Your task to perform on an android device: Toggle the flashlight Image 0: 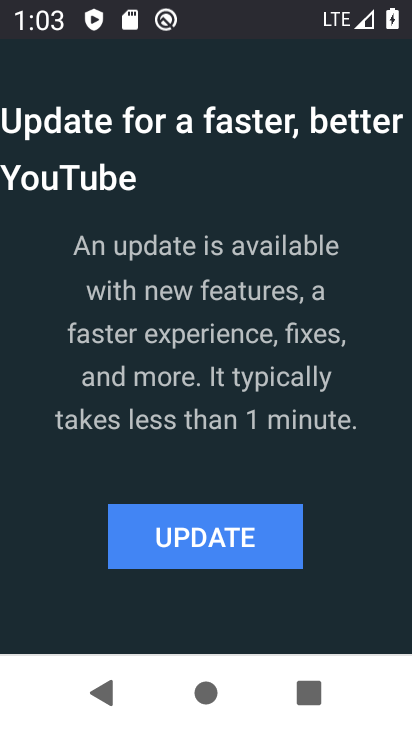
Step 0: press home button
Your task to perform on an android device: Toggle the flashlight Image 1: 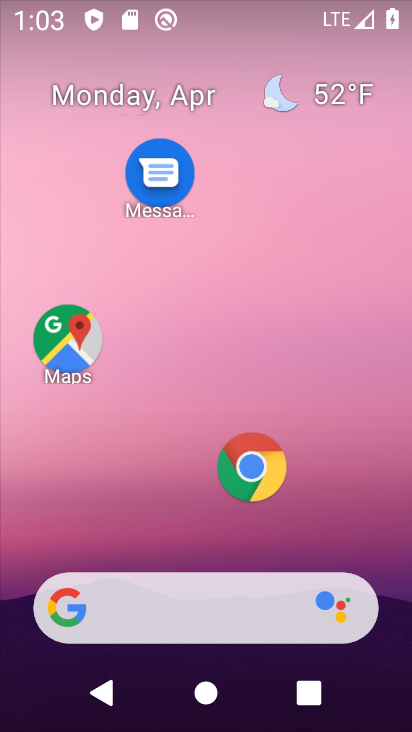
Step 1: drag from (193, 549) to (207, 205)
Your task to perform on an android device: Toggle the flashlight Image 2: 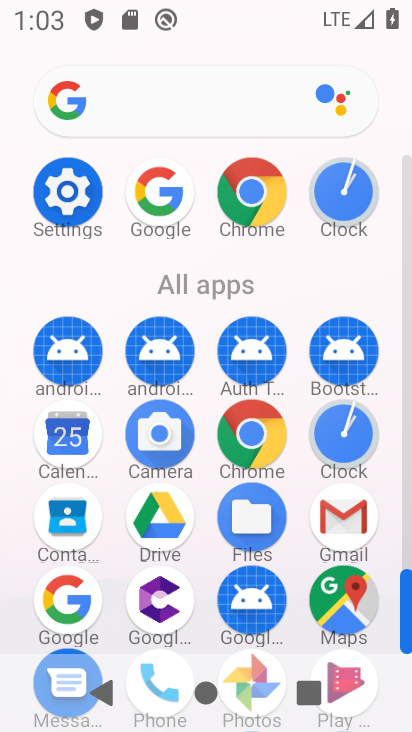
Step 2: click (67, 206)
Your task to perform on an android device: Toggle the flashlight Image 3: 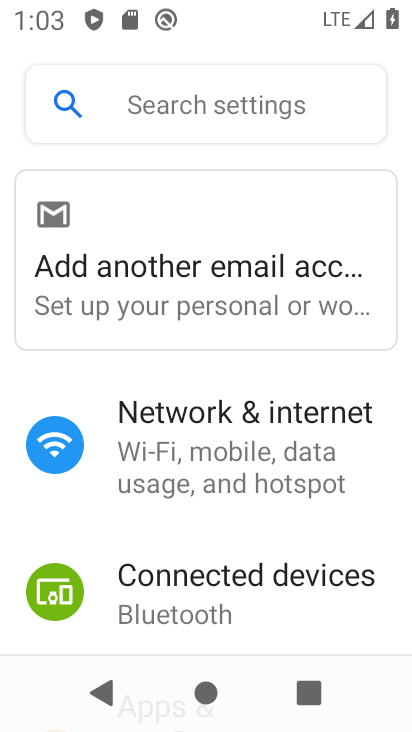
Step 3: click (185, 423)
Your task to perform on an android device: Toggle the flashlight Image 4: 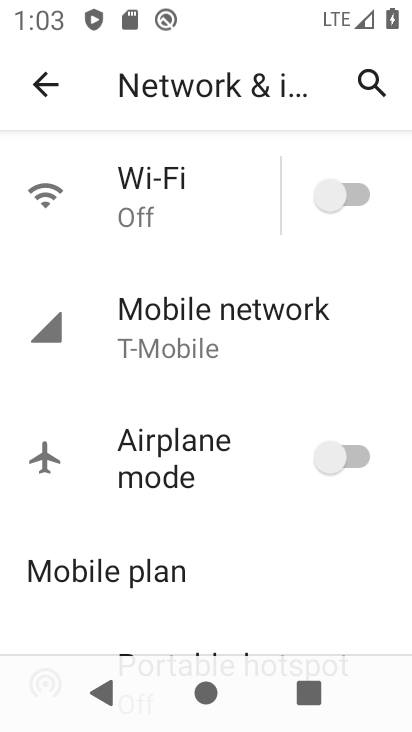
Step 4: task complete